Your task to perform on an android device: Open Youtube and go to "Your channel" Image 0: 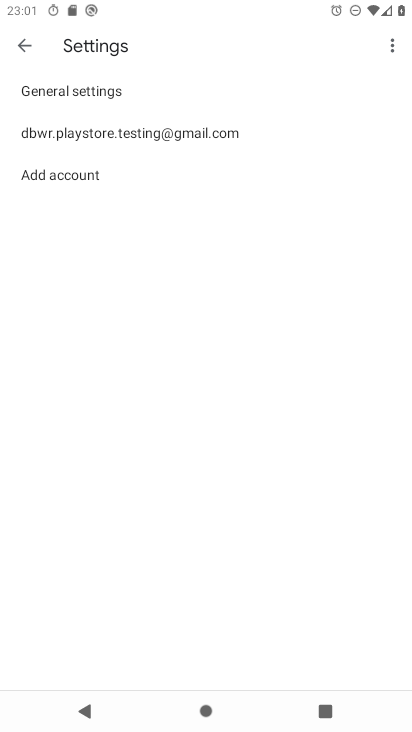
Step 0: press home button
Your task to perform on an android device: Open Youtube and go to "Your channel" Image 1: 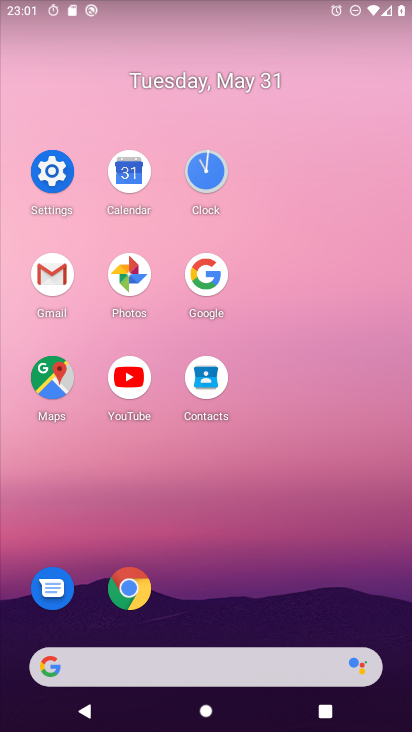
Step 1: click (130, 385)
Your task to perform on an android device: Open Youtube and go to "Your channel" Image 2: 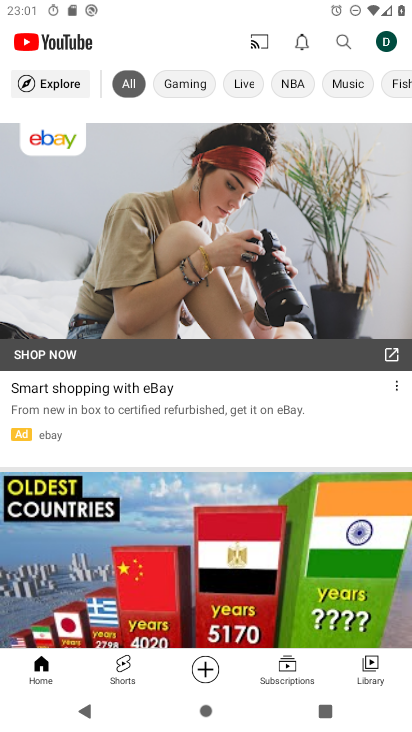
Step 2: click (385, 46)
Your task to perform on an android device: Open Youtube and go to "Your channel" Image 3: 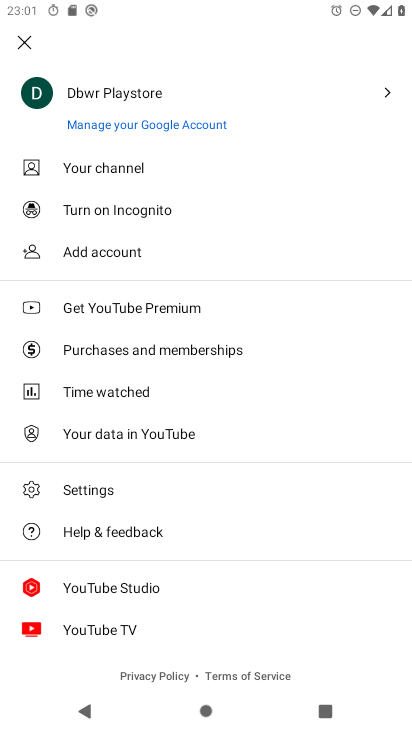
Step 3: click (103, 169)
Your task to perform on an android device: Open Youtube and go to "Your channel" Image 4: 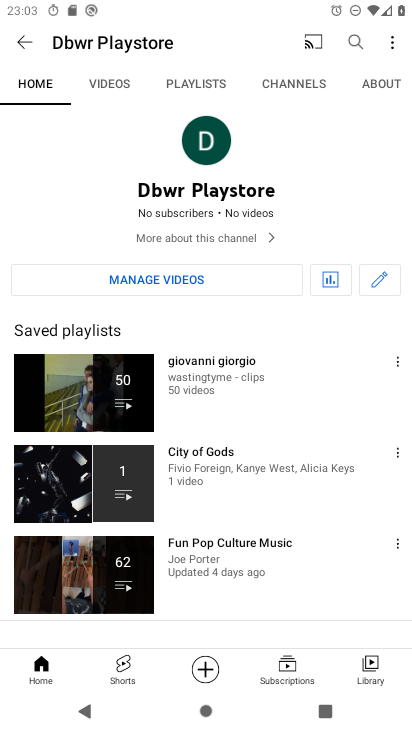
Step 4: task complete